Your task to perform on an android device: Clear the shopping cart on ebay. Search for "bose soundsport free" on ebay, select the first entry, and add it to the cart. Image 0: 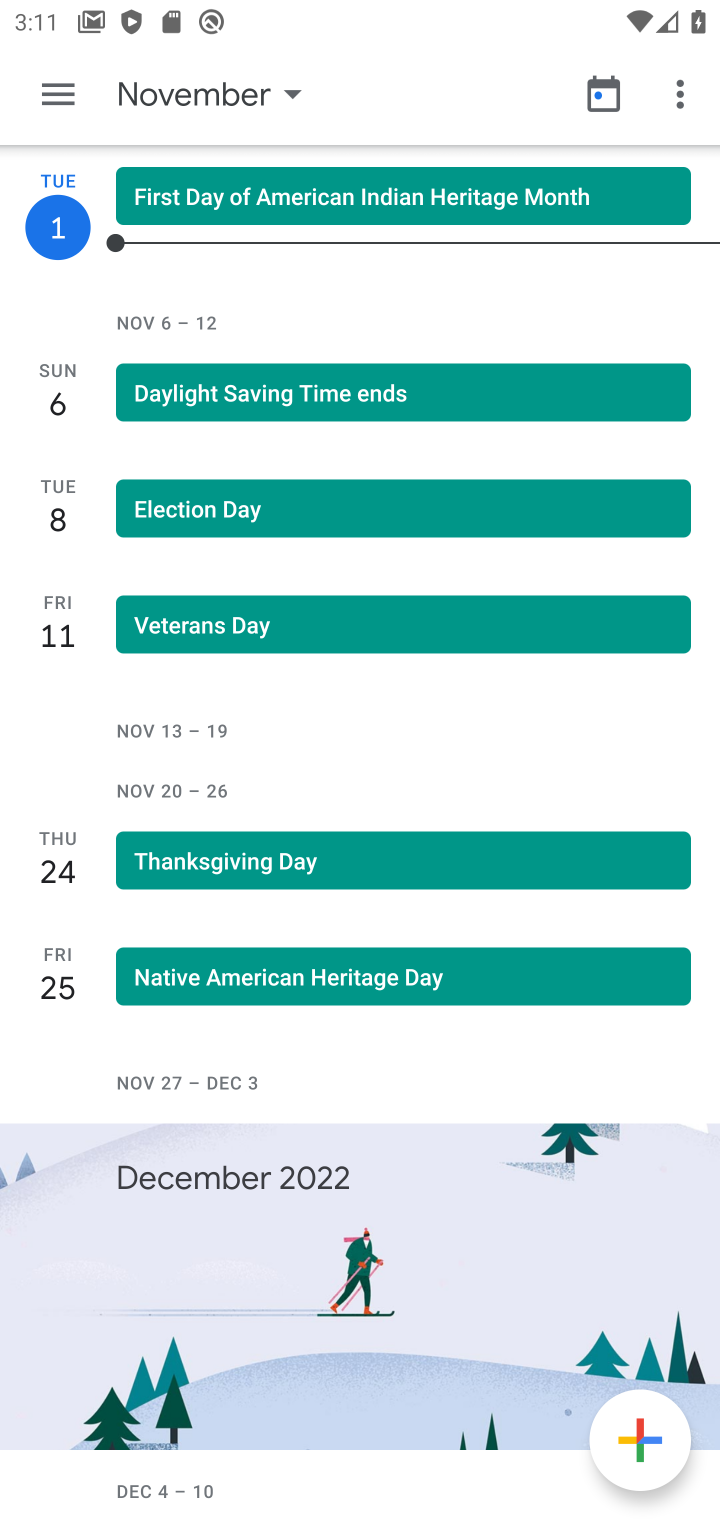
Step 0: press home button
Your task to perform on an android device: Clear the shopping cart on ebay. Search for "bose soundsport free" on ebay, select the first entry, and add it to the cart. Image 1: 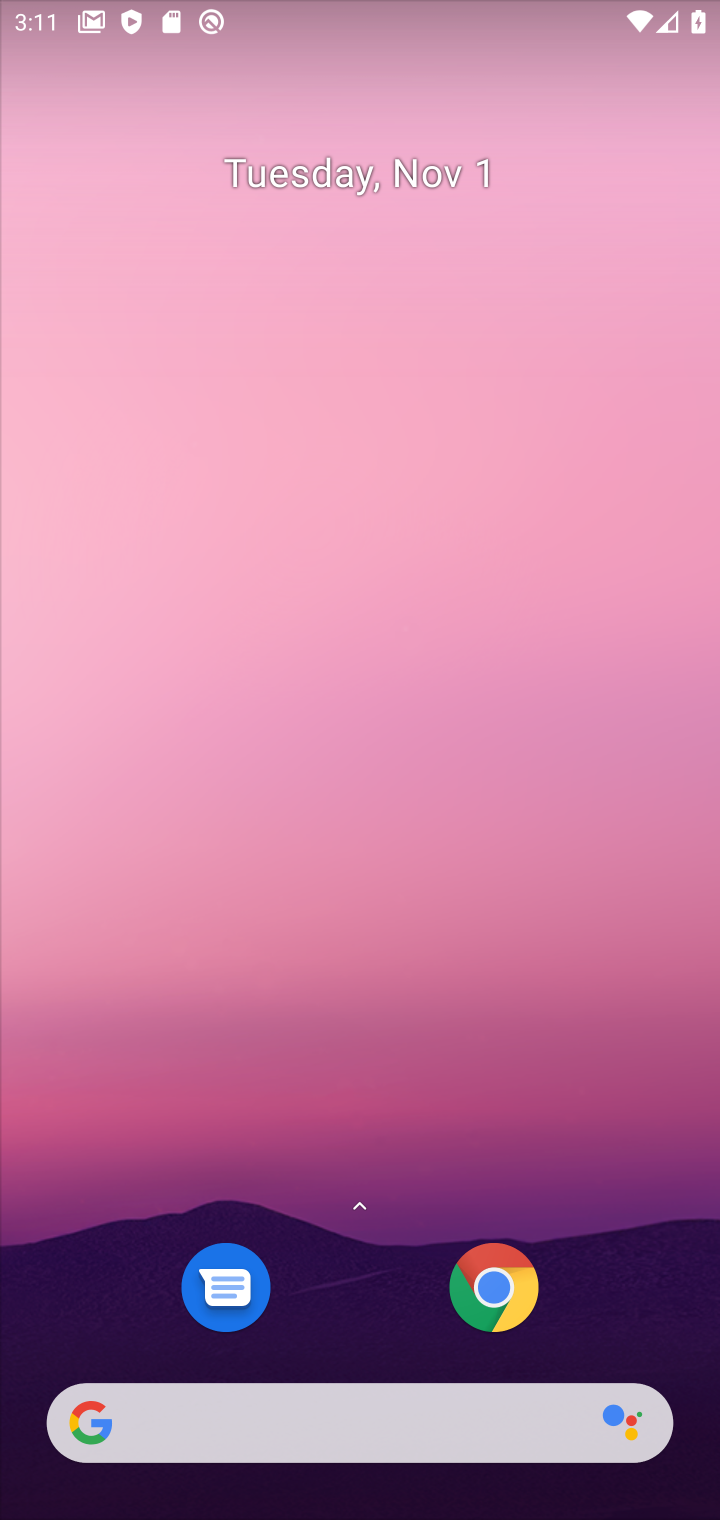
Step 1: drag from (344, 1199) to (541, 266)
Your task to perform on an android device: Clear the shopping cart on ebay. Search for "bose soundsport free" on ebay, select the first entry, and add it to the cart. Image 2: 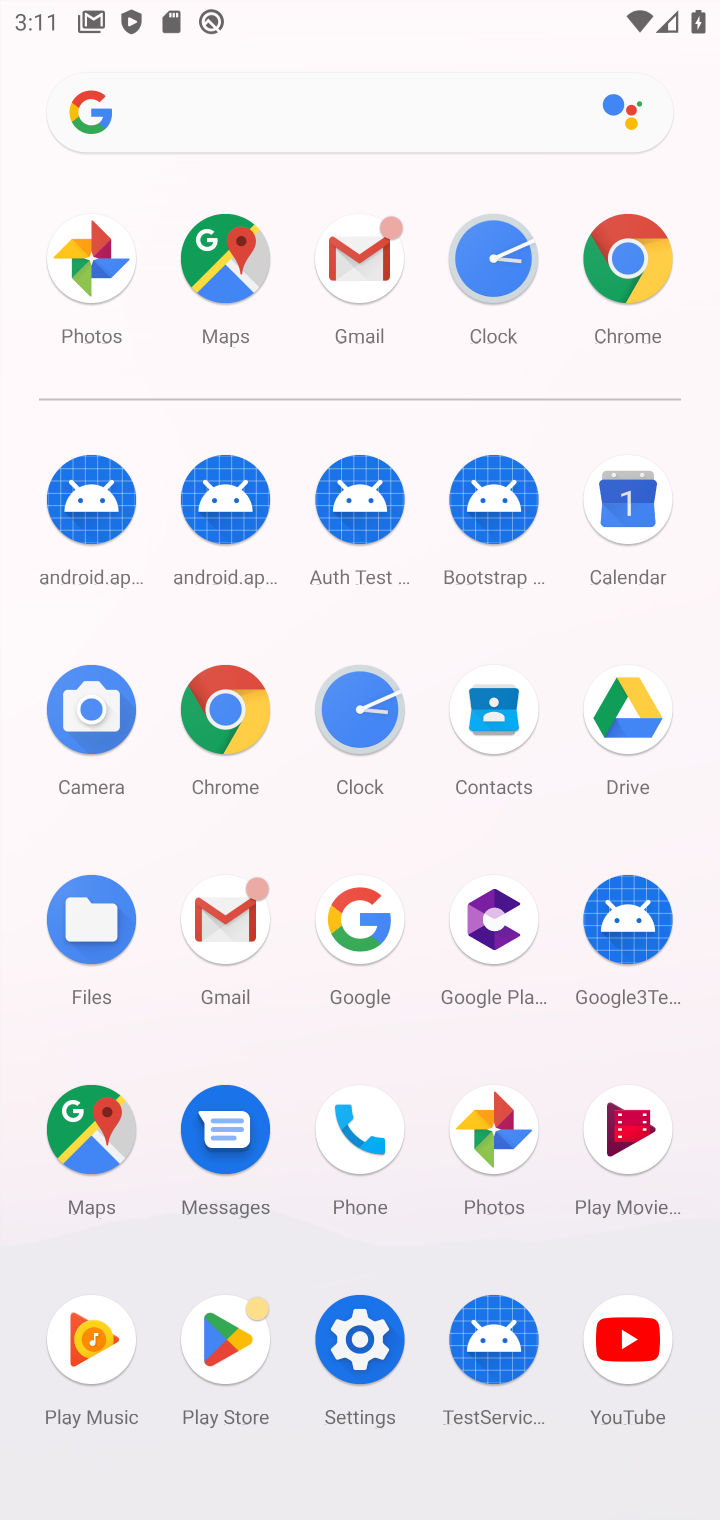
Step 2: click (237, 701)
Your task to perform on an android device: Clear the shopping cart on ebay. Search for "bose soundsport free" on ebay, select the first entry, and add it to the cart. Image 3: 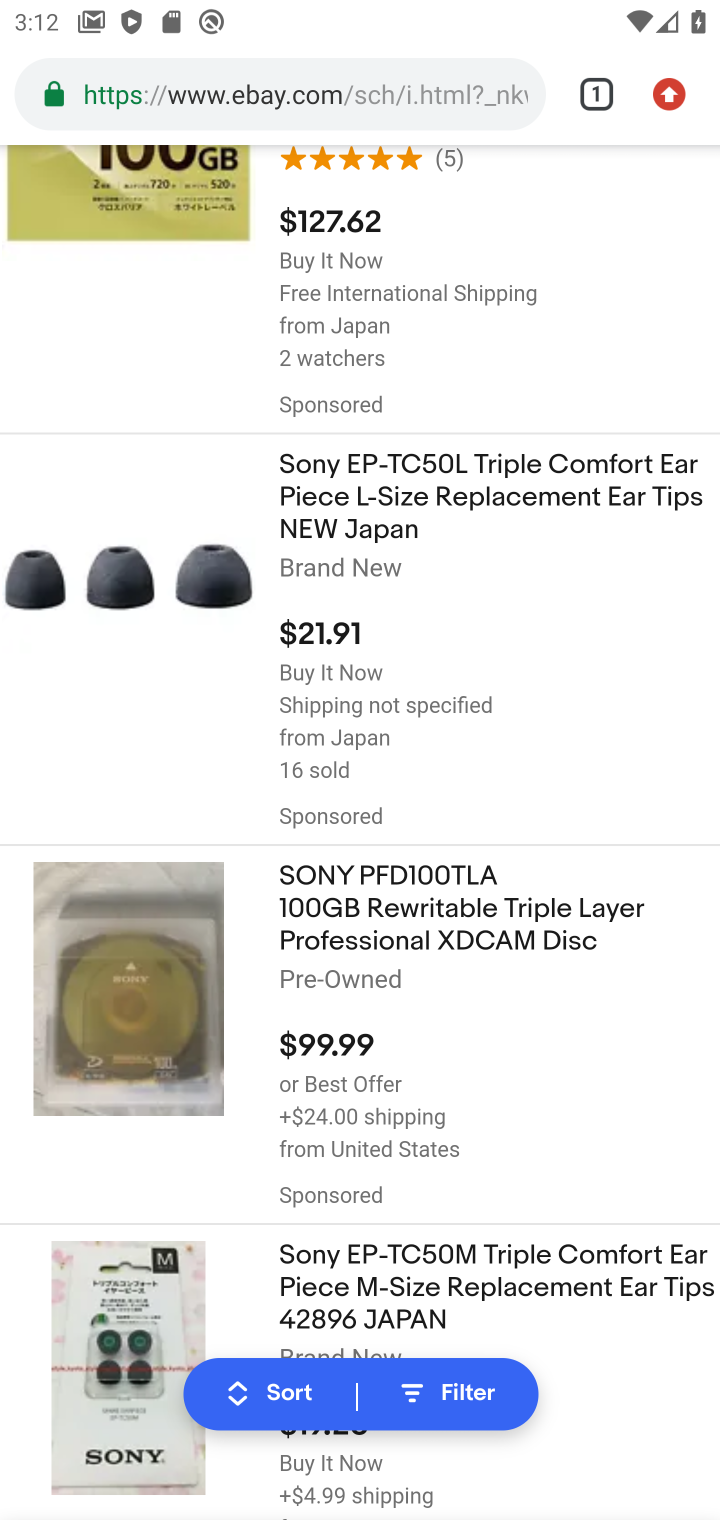
Step 3: click (398, 86)
Your task to perform on an android device: Clear the shopping cart on ebay. Search for "bose soundsport free" on ebay, select the first entry, and add it to the cart. Image 4: 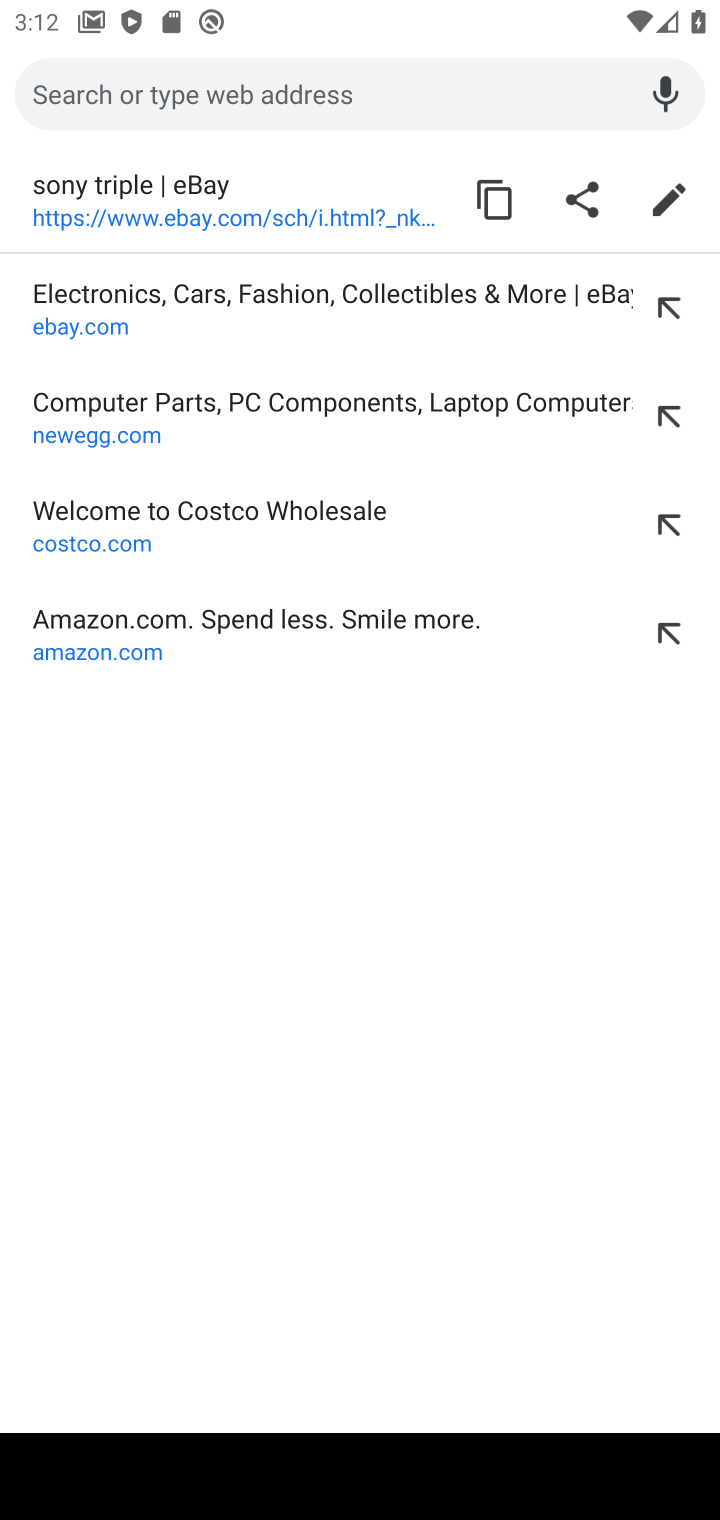
Step 4: type "ebay.com"
Your task to perform on an android device: Clear the shopping cart on ebay. Search for "bose soundsport free" on ebay, select the first entry, and add it to the cart. Image 5: 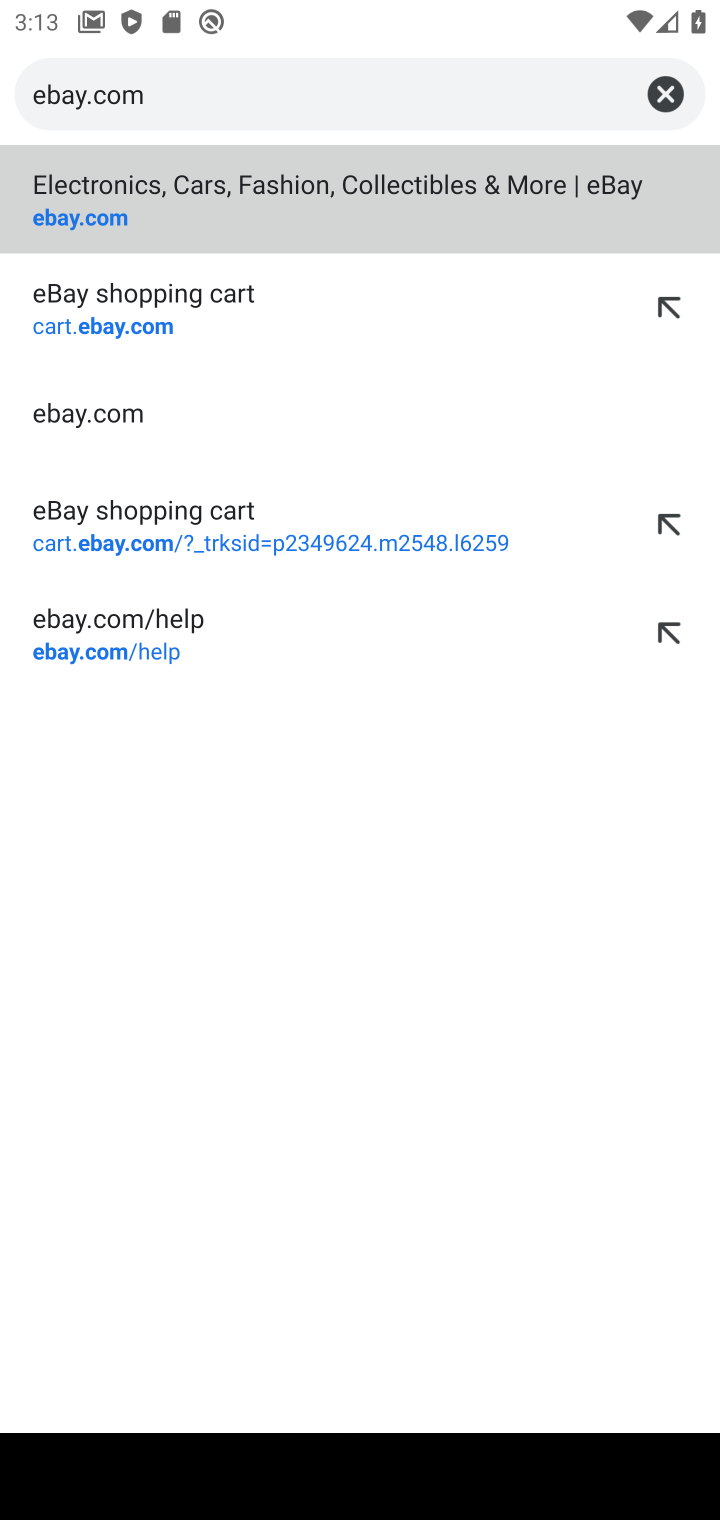
Step 5: press enter
Your task to perform on an android device: Clear the shopping cart on ebay. Search for "bose soundsport free" on ebay, select the first entry, and add it to the cart. Image 6: 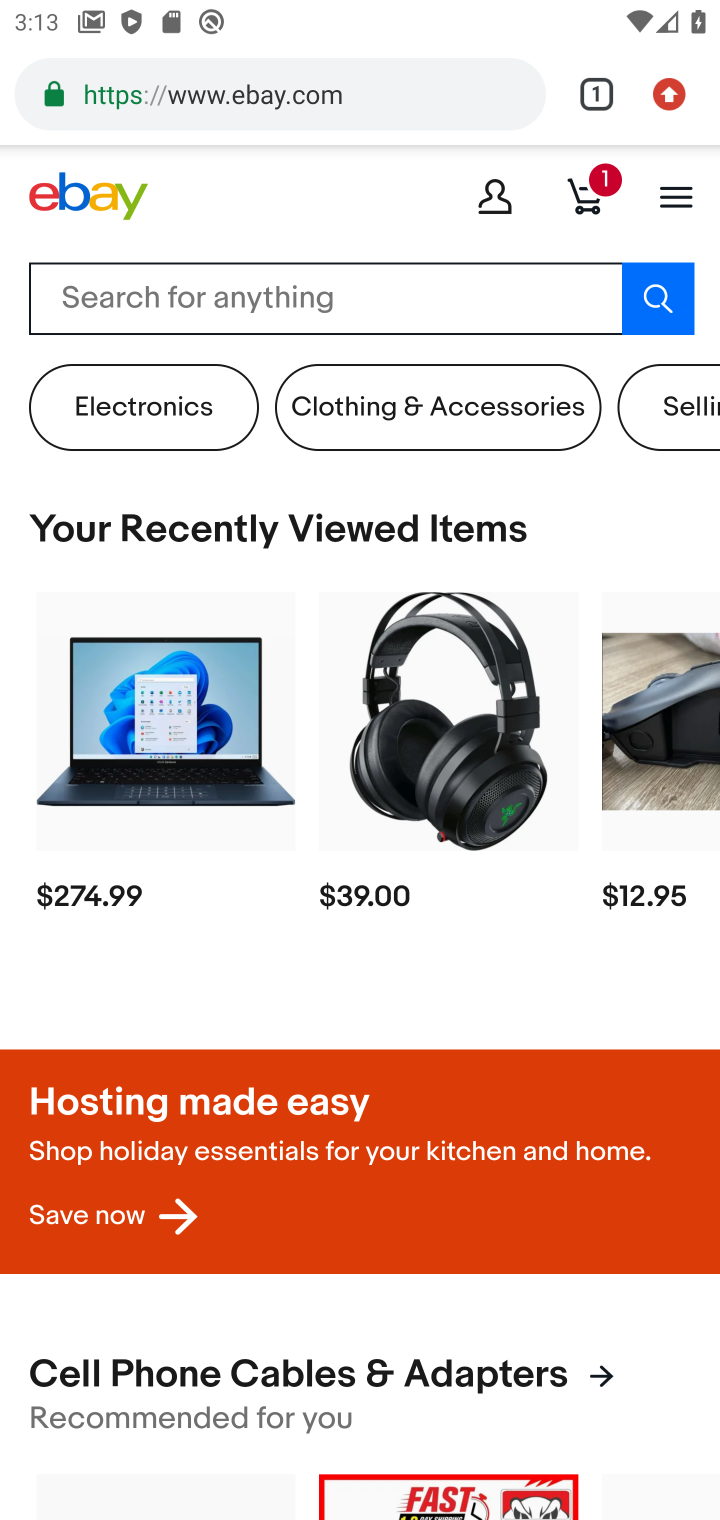
Step 6: click (612, 187)
Your task to perform on an android device: Clear the shopping cart on ebay. Search for "bose soundsport free" on ebay, select the first entry, and add it to the cart. Image 7: 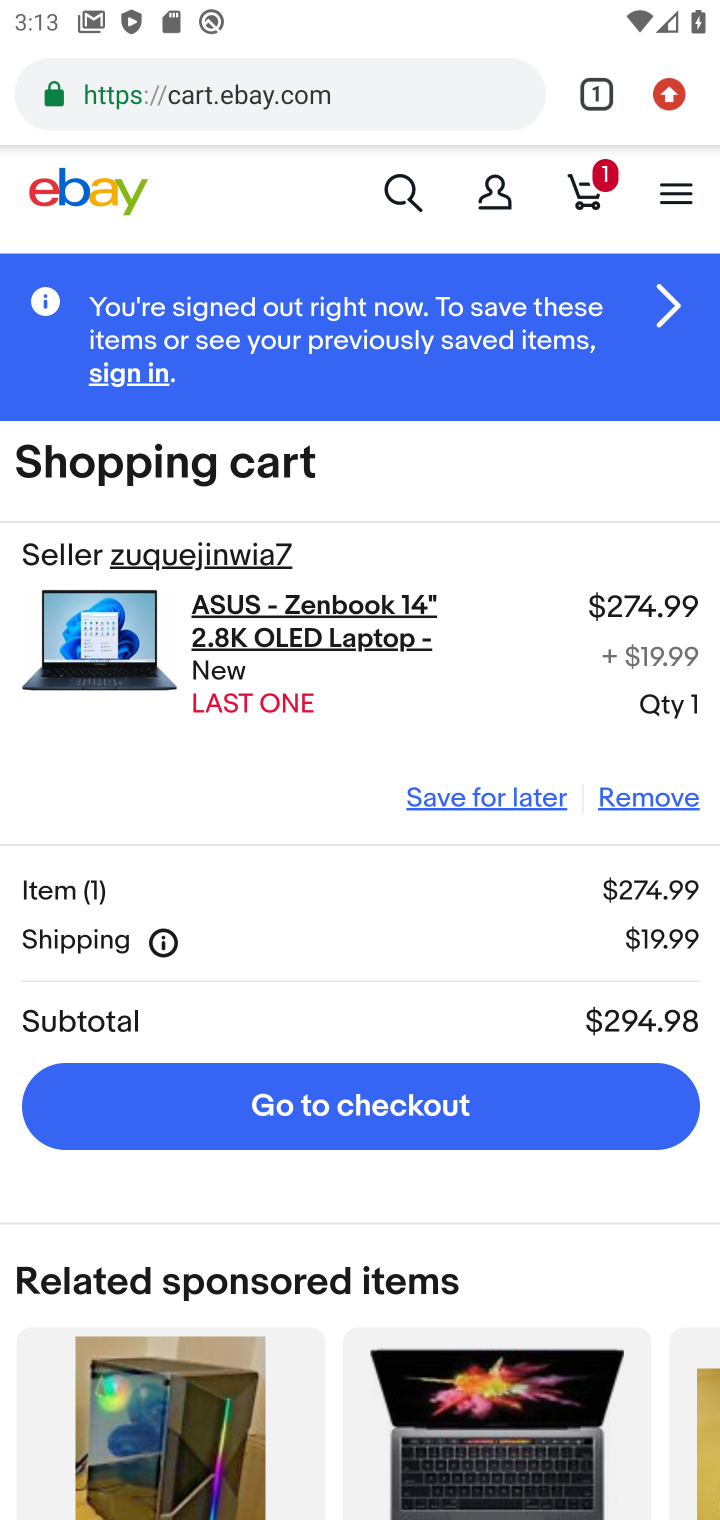
Step 7: click (651, 789)
Your task to perform on an android device: Clear the shopping cart on ebay. Search for "bose soundsport free" on ebay, select the first entry, and add it to the cart. Image 8: 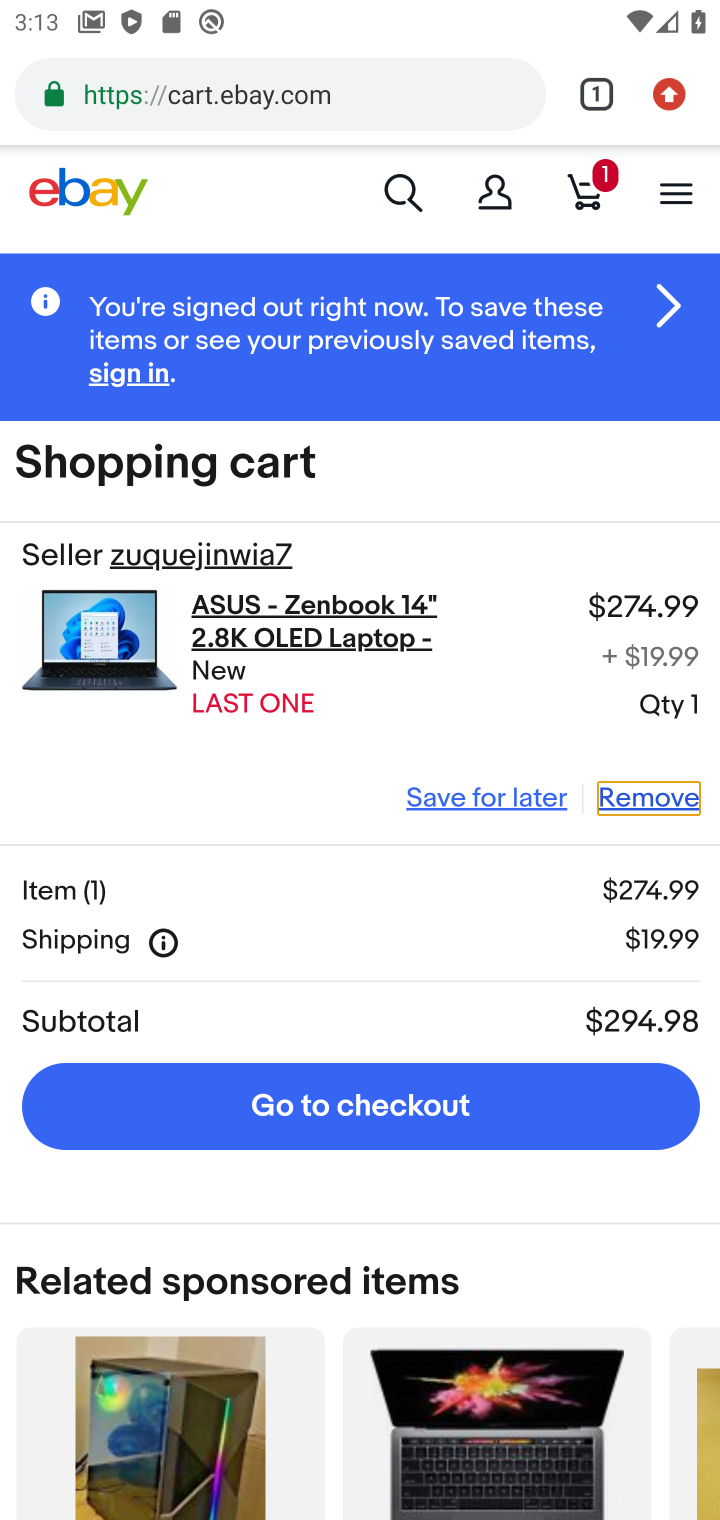
Step 8: click (652, 791)
Your task to perform on an android device: Clear the shopping cart on ebay. Search for "bose soundsport free" on ebay, select the first entry, and add it to the cart. Image 9: 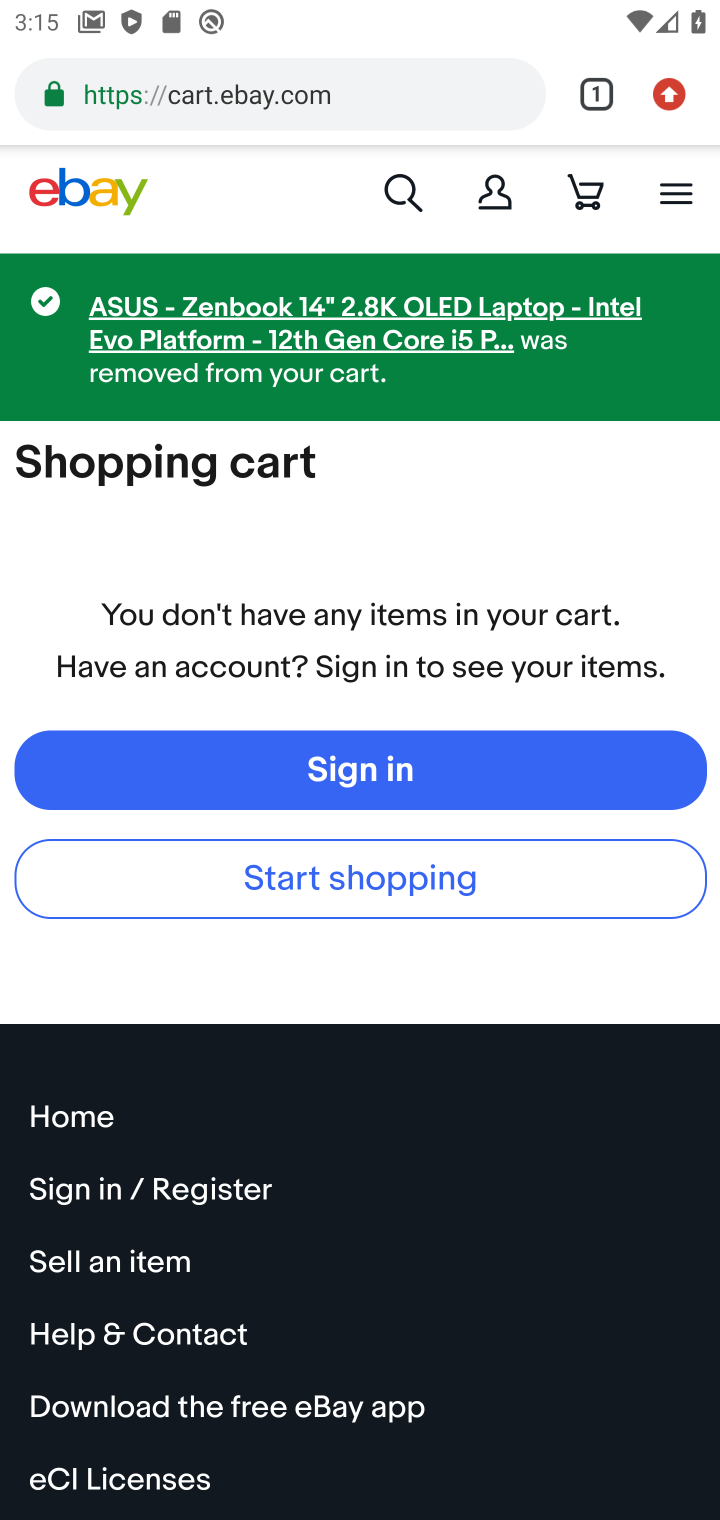
Step 9: click (402, 189)
Your task to perform on an android device: Clear the shopping cart on ebay. Search for "bose soundsport free" on ebay, select the first entry, and add it to the cart. Image 10: 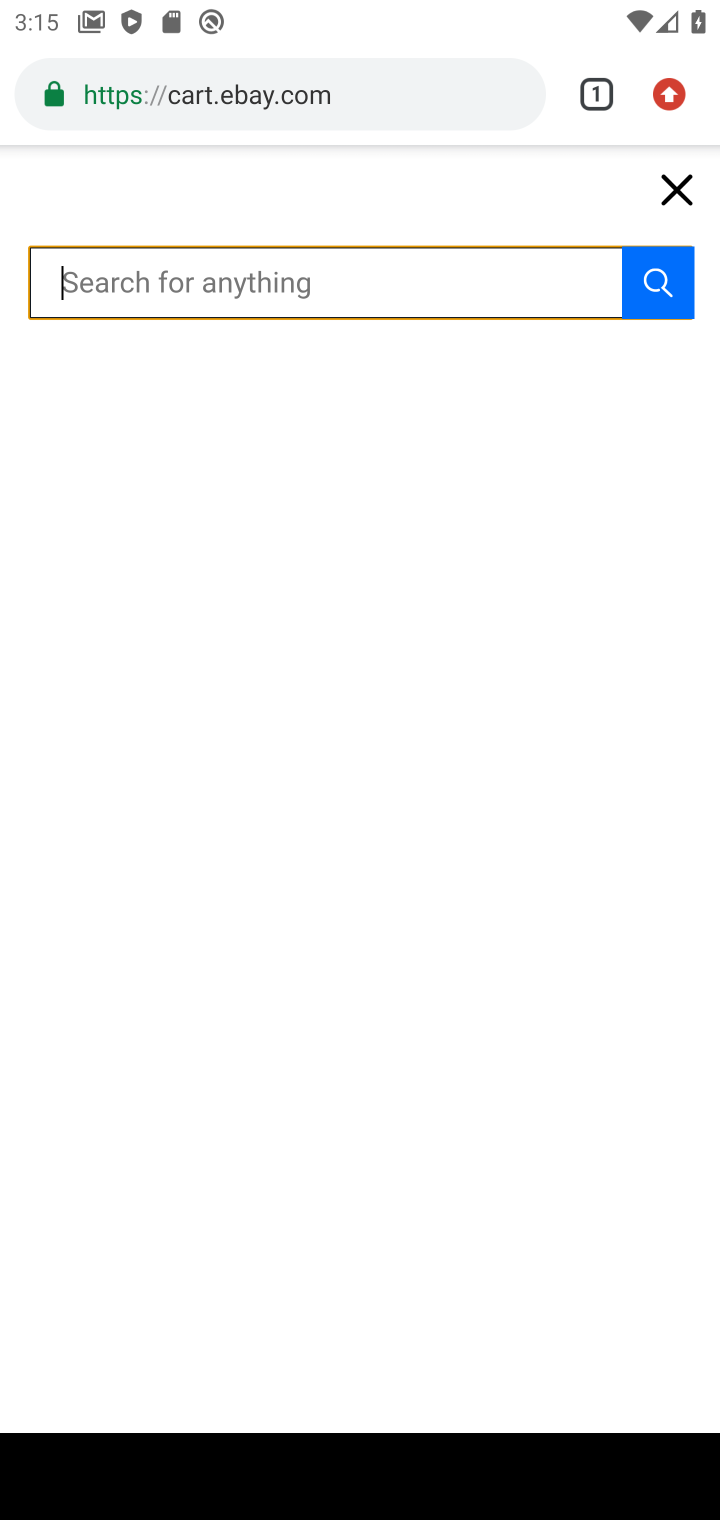
Step 10: type "bose soundsport free"
Your task to perform on an android device: Clear the shopping cart on ebay. Search for "bose soundsport free" on ebay, select the first entry, and add it to the cart. Image 11: 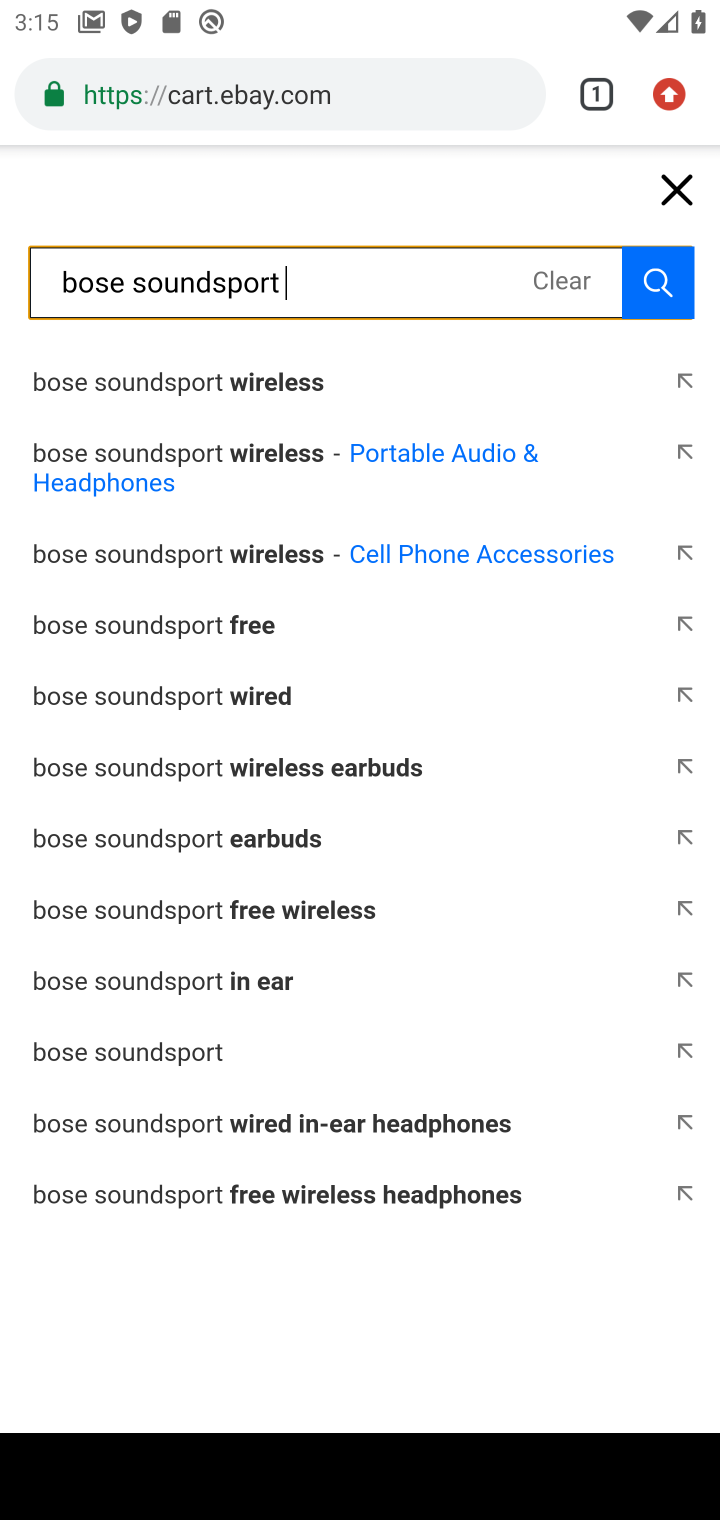
Step 11: press enter
Your task to perform on an android device: Clear the shopping cart on ebay. Search for "bose soundsport free" on ebay, select the first entry, and add it to the cart. Image 12: 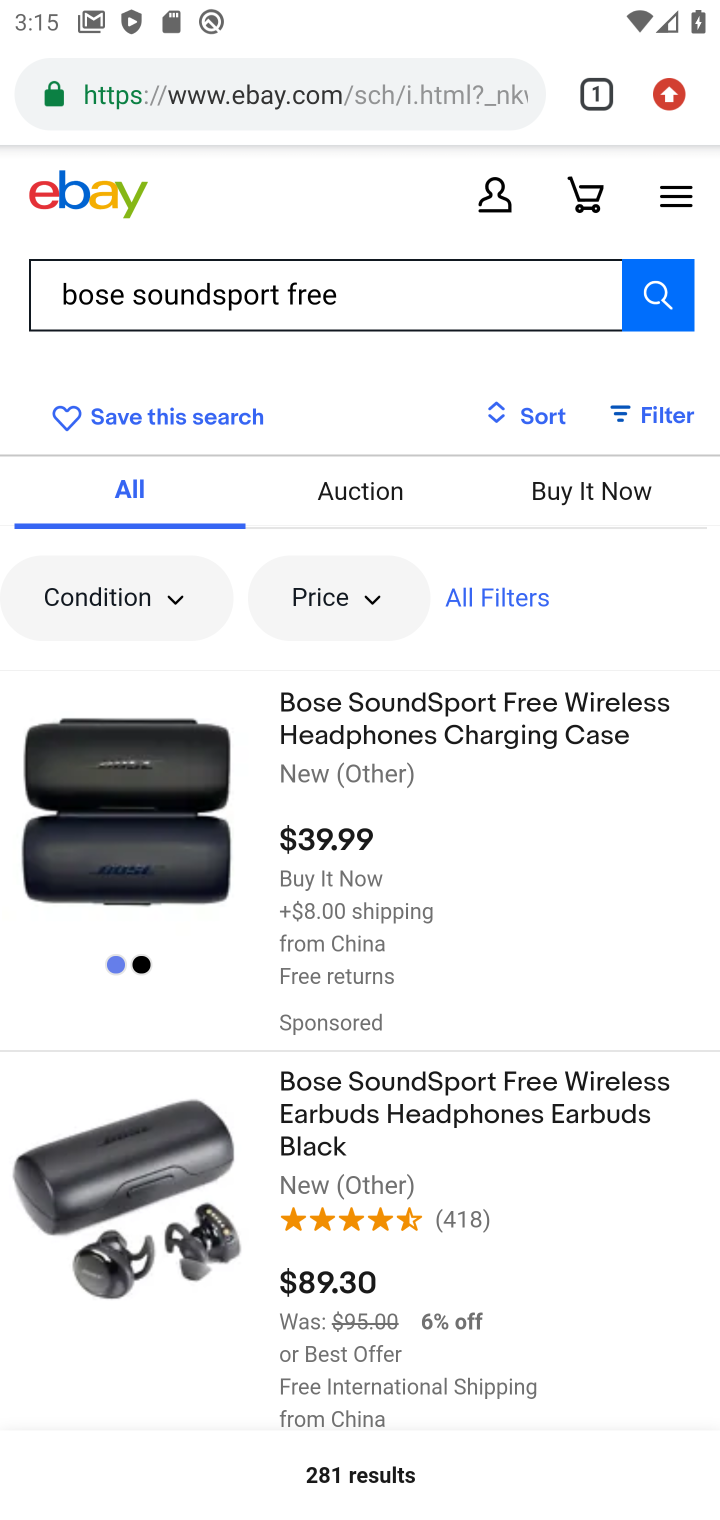
Step 12: click (184, 833)
Your task to perform on an android device: Clear the shopping cart on ebay. Search for "bose soundsport free" on ebay, select the first entry, and add it to the cart. Image 13: 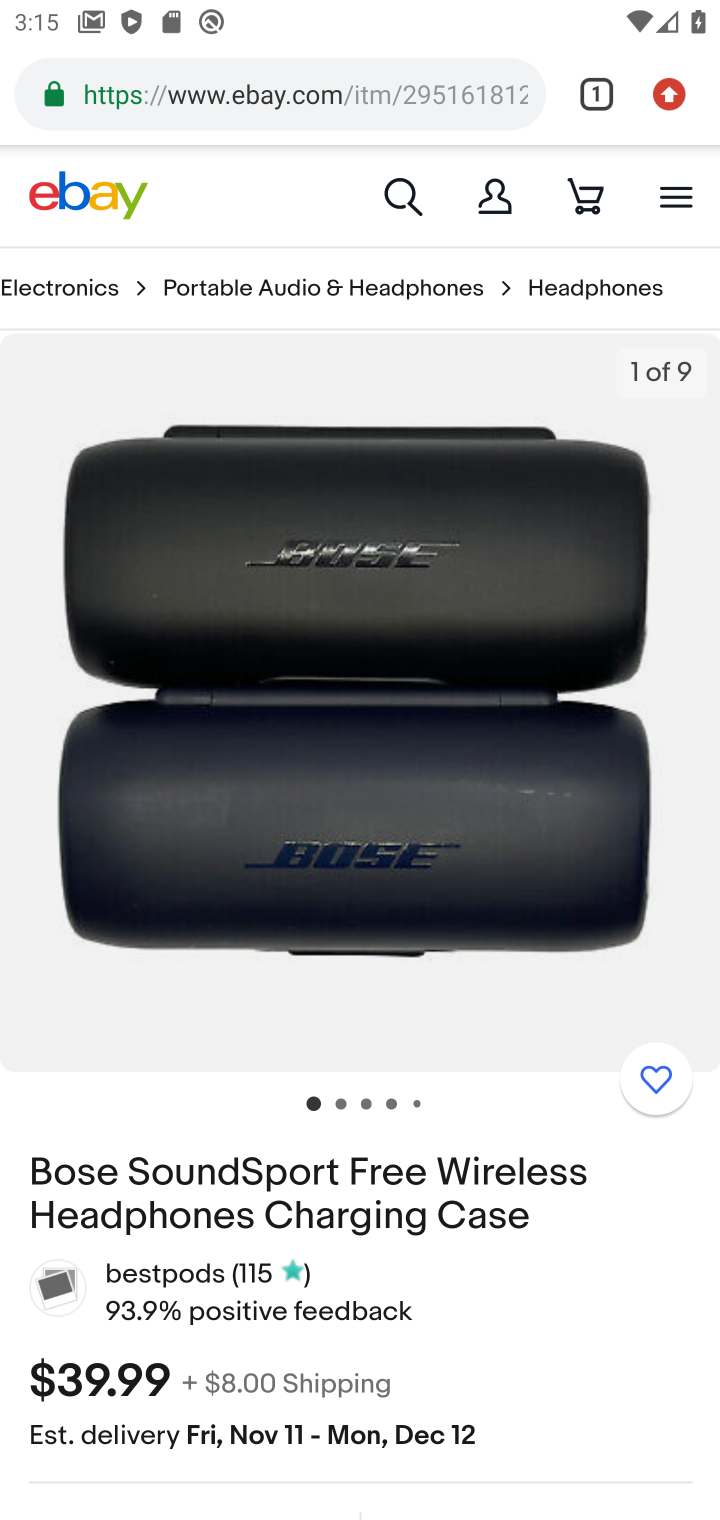
Step 13: drag from (433, 1181) to (446, 602)
Your task to perform on an android device: Clear the shopping cart on ebay. Search for "bose soundsport free" on ebay, select the first entry, and add it to the cart. Image 14: 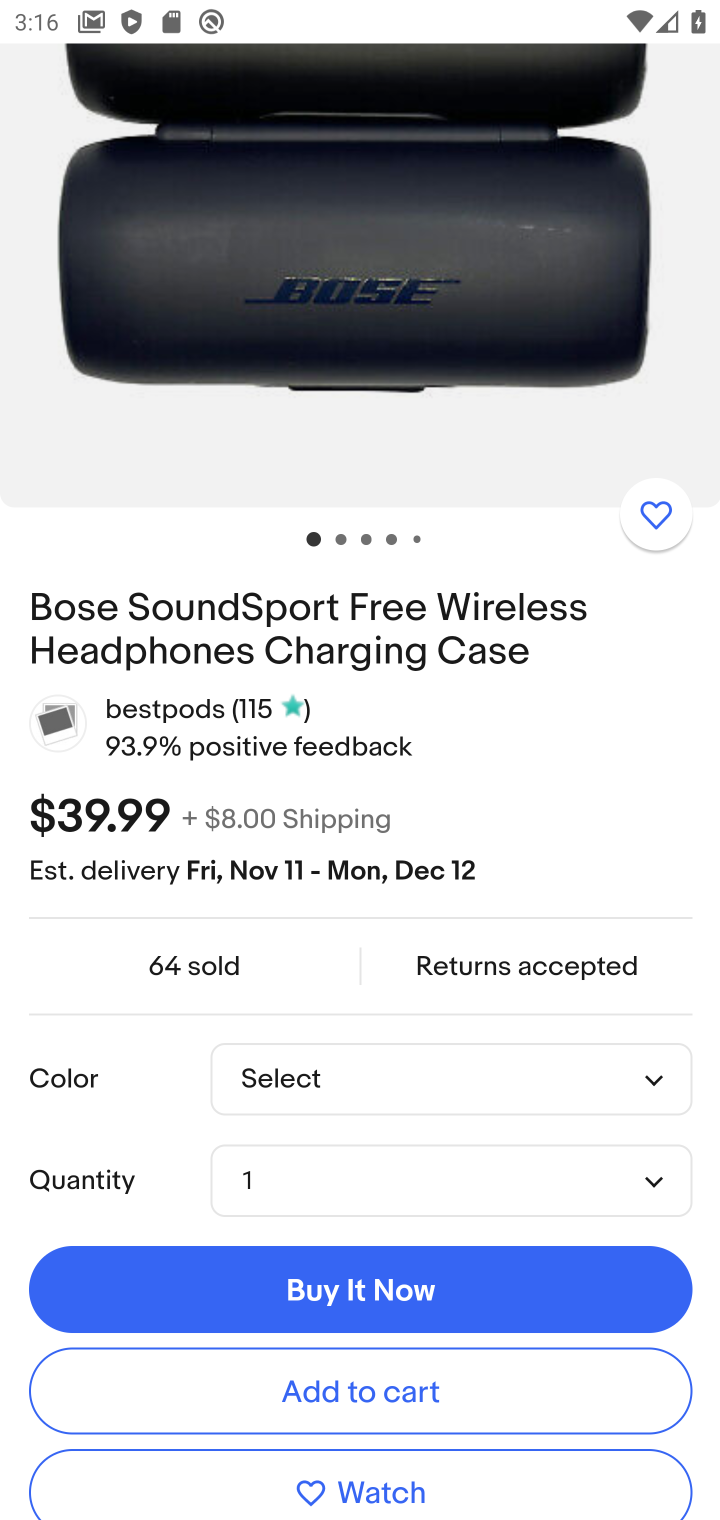
Step 14: click (442, 1396)
Your task to perform on an android device: Clear the shopping cart on ebay. Search for "bose soundsport free" on ebay, select the first entry, and add it to the cart. Image 15: 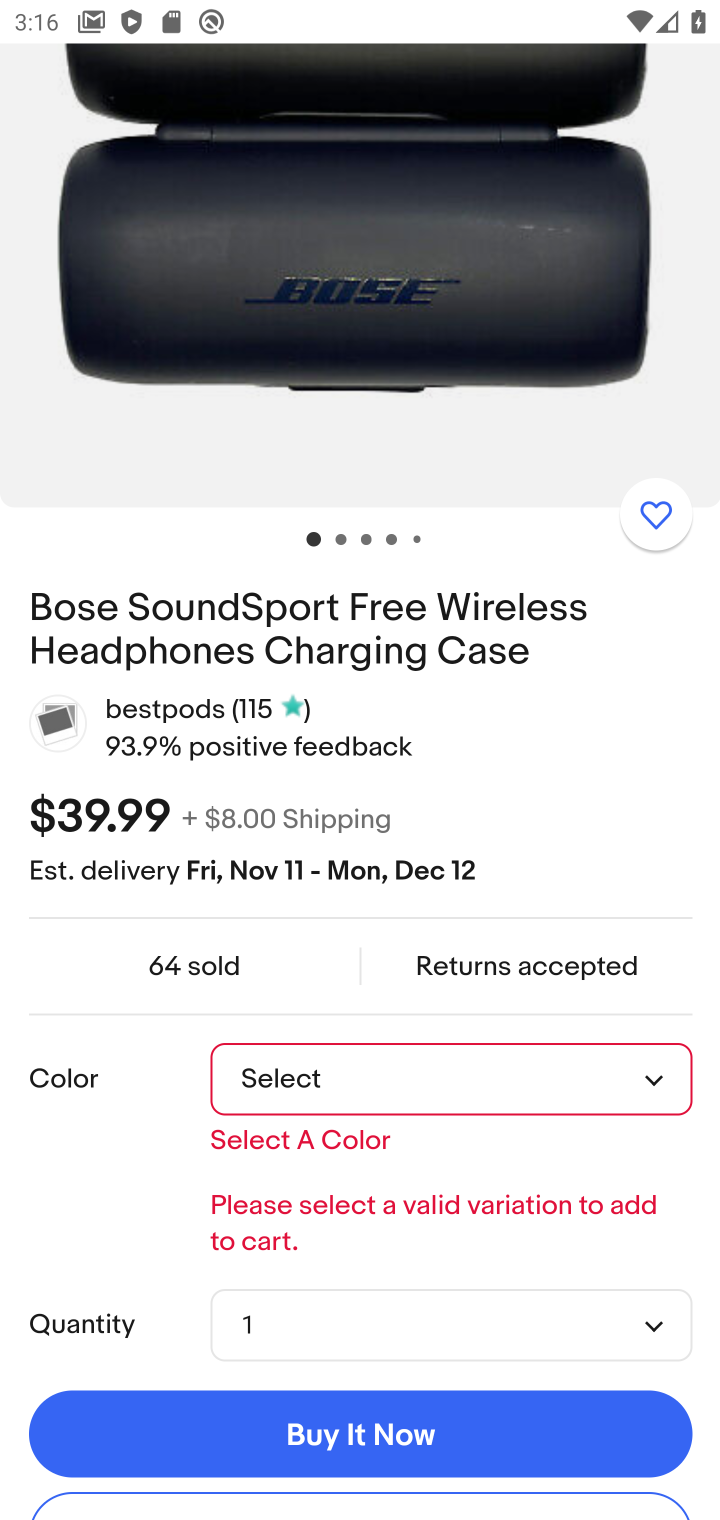
Step 15: click (466, 1072)
Your task to perform on an android device: Clear the shopping cart on ebay. Search for "bose soundsport free" on ebay, select the first entry, and add it to the cart. Image 16: 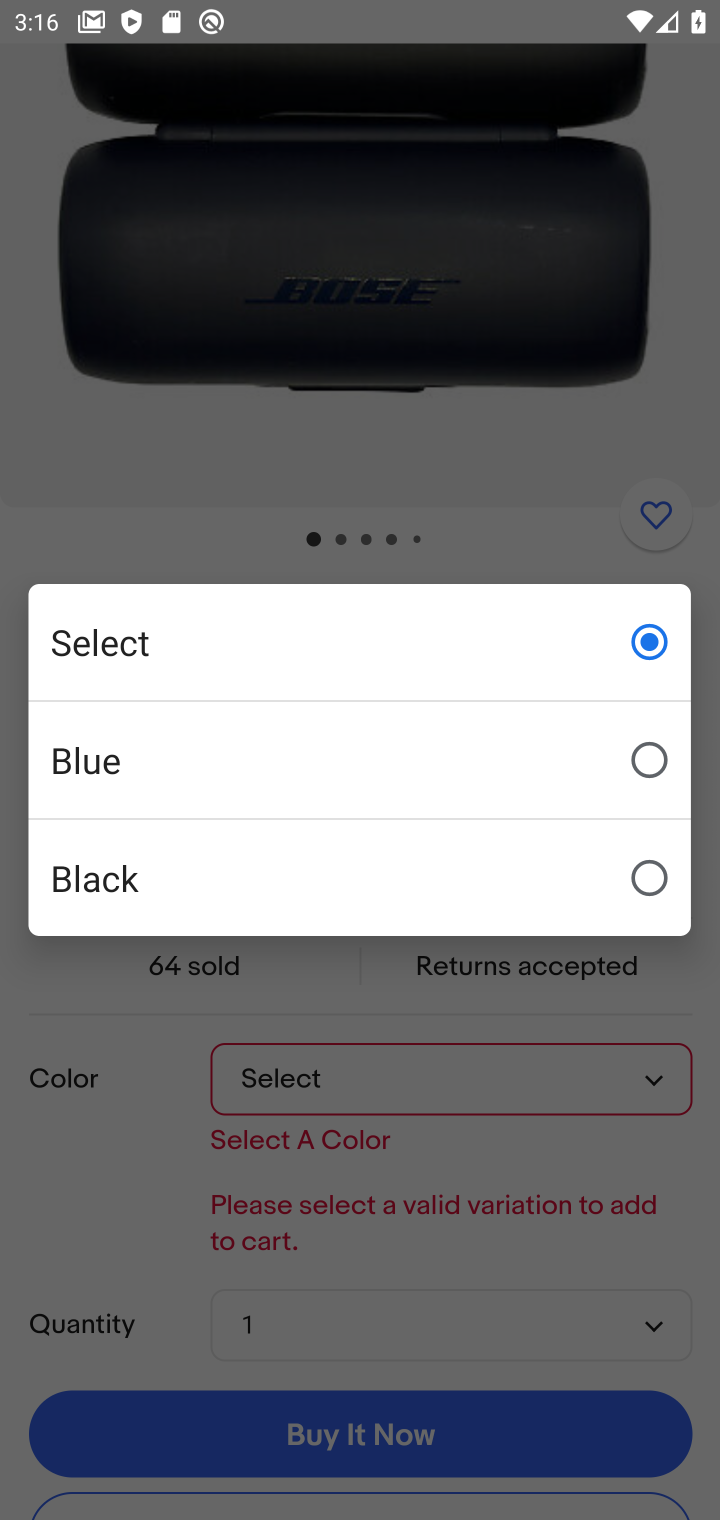
Step 16: click (271, 749)
Your task to perform on an android device: Clear the shopping cart on ebay. Search for "bose soundsport free" on ebay, select the first entry, and add it to the cart. Image 17: 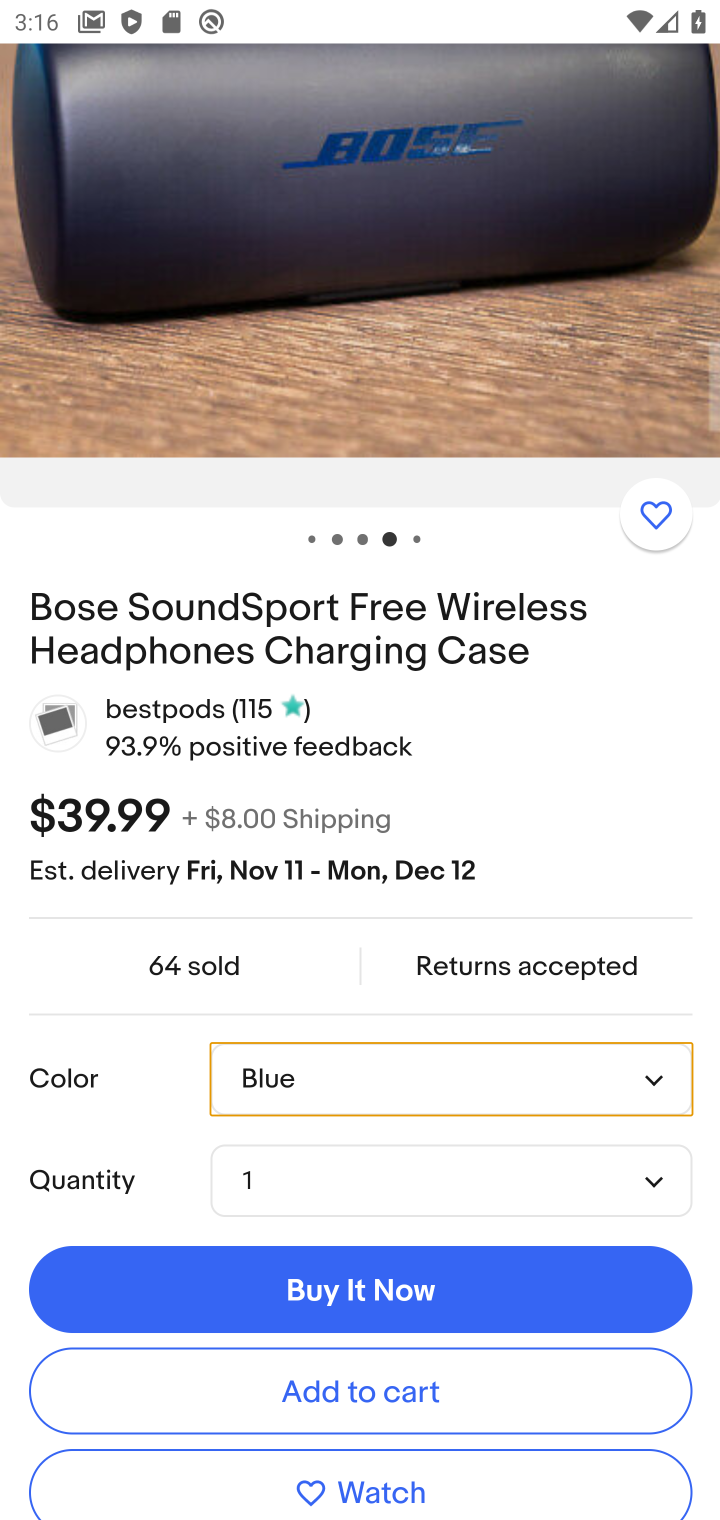
Step 17: click (488, 1398)
Your task to perform on an android device: Clear the shopping cart on ebay. Search for "bose soundsport free" on ebay, select the first entry, and add it to the cart. Image 18: 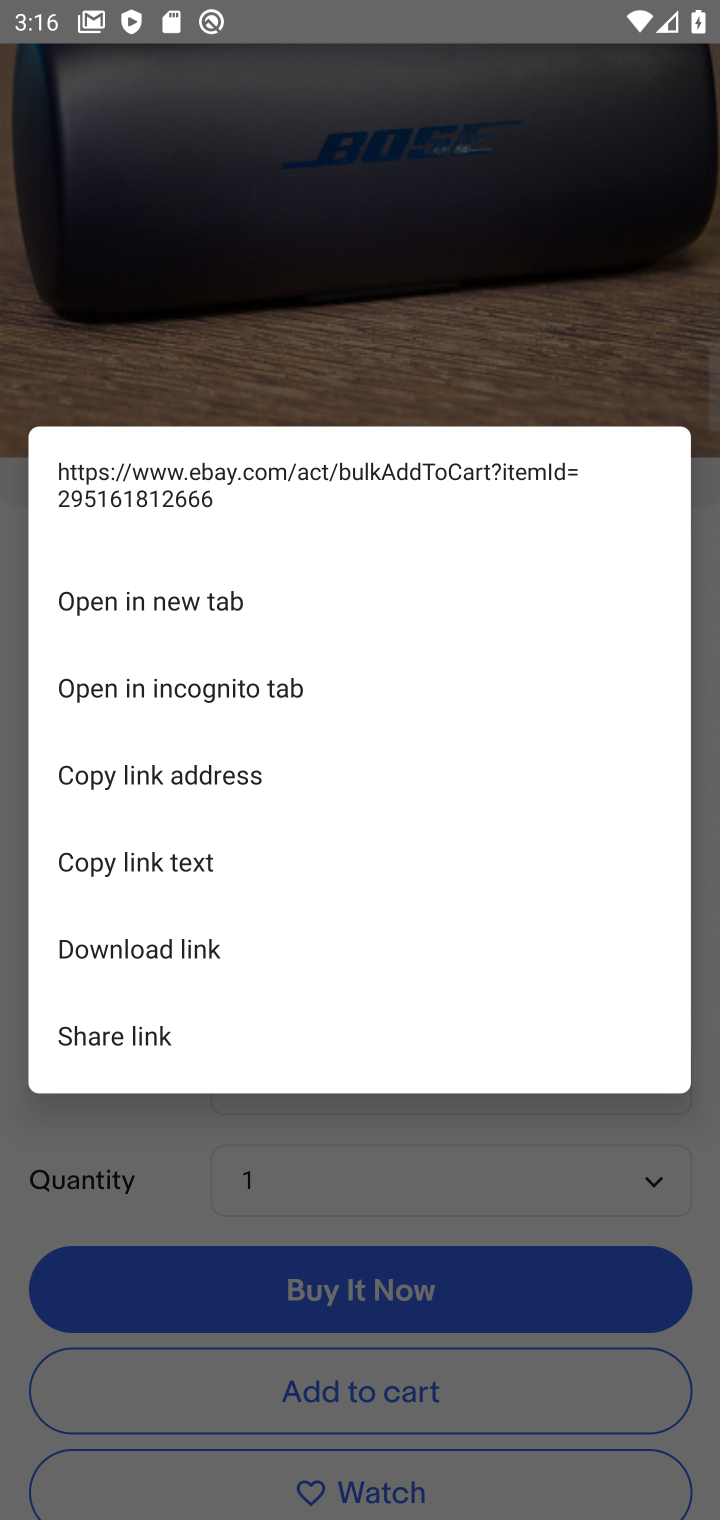
Step 18: click (470, 1208)
Your task to perform on an android device: Clear the shopping cart on ebay. Search for "bose soundsport free" on ebay, select the first entry, and add it to the cart. Image 19: 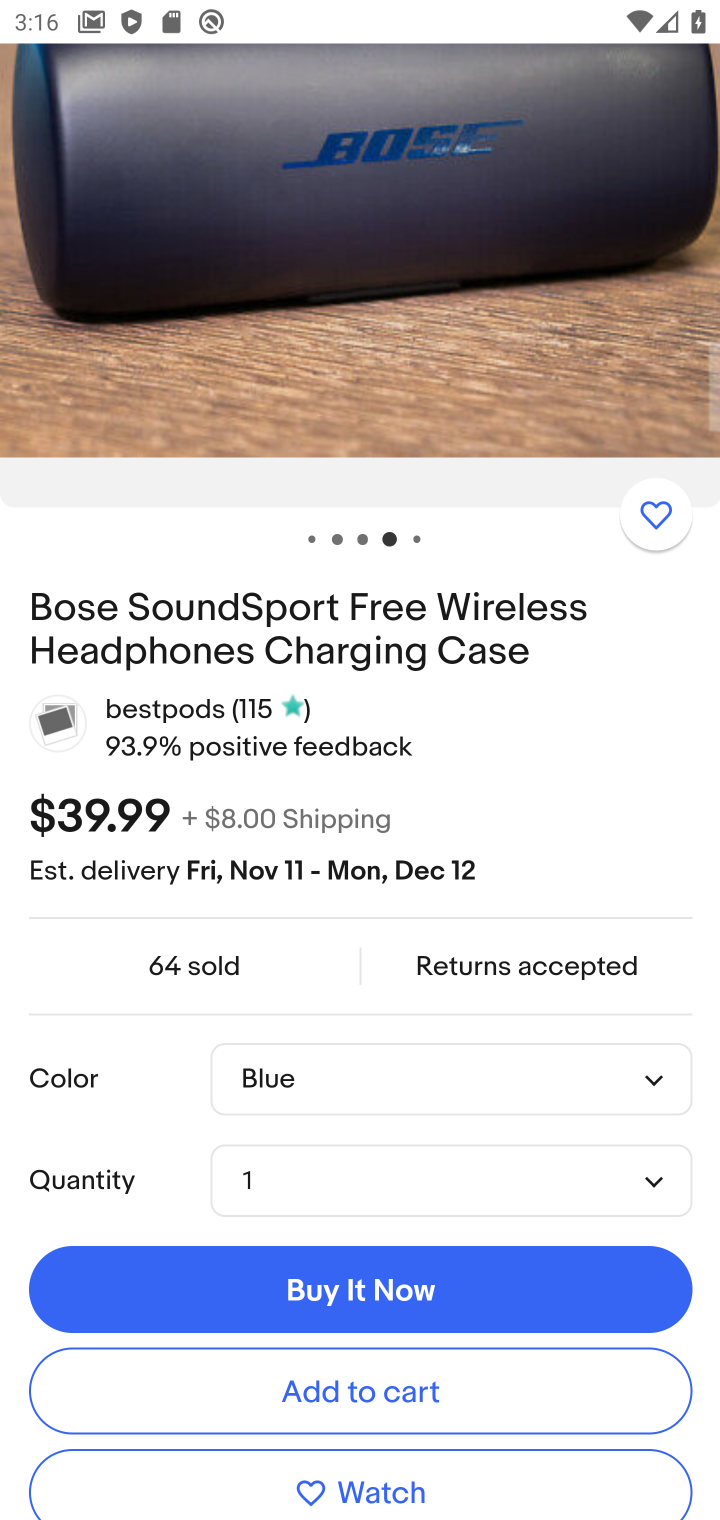
Step 19: click (509, 1420)
Your task to perform on an android device: Clear the shopping cart on ebay. Search for "bose soundsport free" on ebay, select the first entry, and add it to the cart. Image 20: 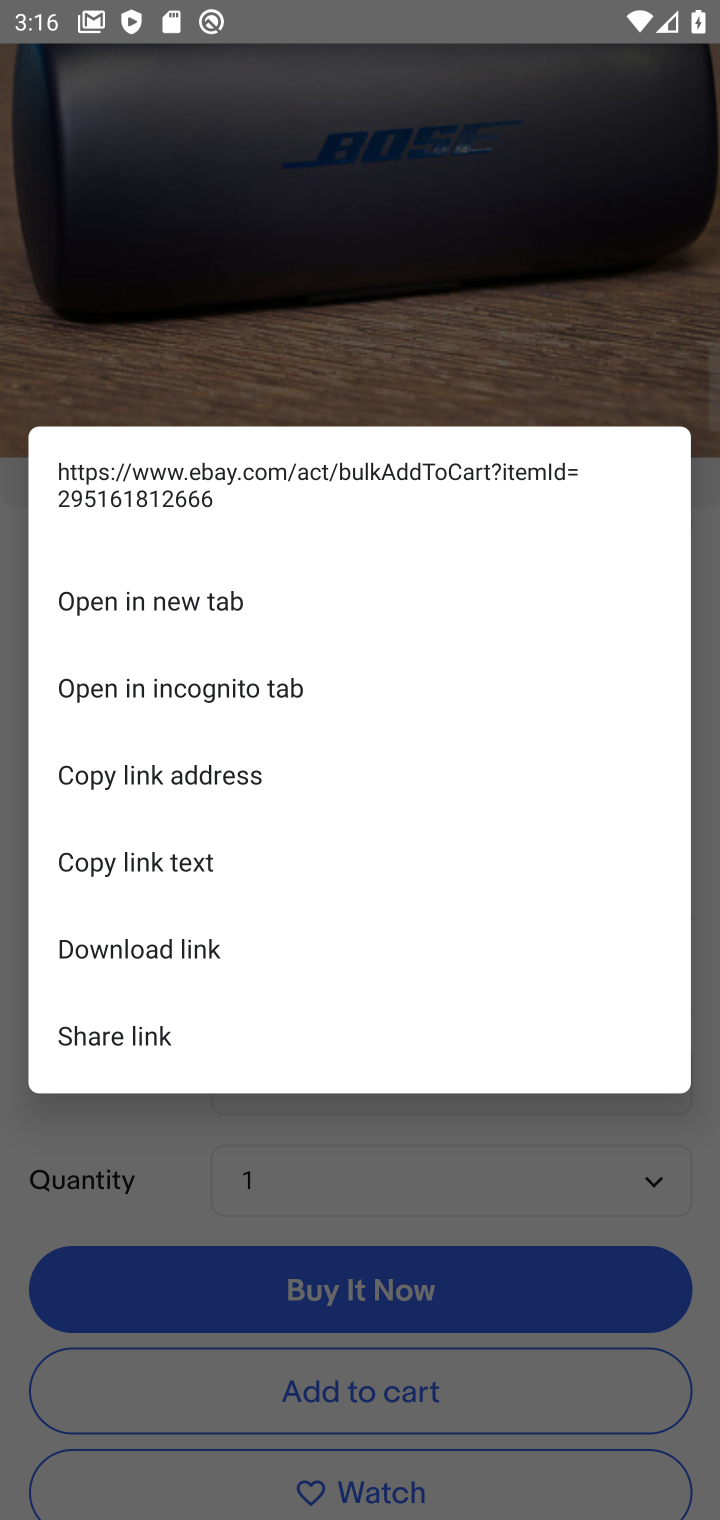
Step 20: click (186, 1409)
Your task to perform on an android device: Clear the shopping cart on ebay. Search for "bose soundsport free" on ebay, select the first entry, and add it to the cart. Image 21: 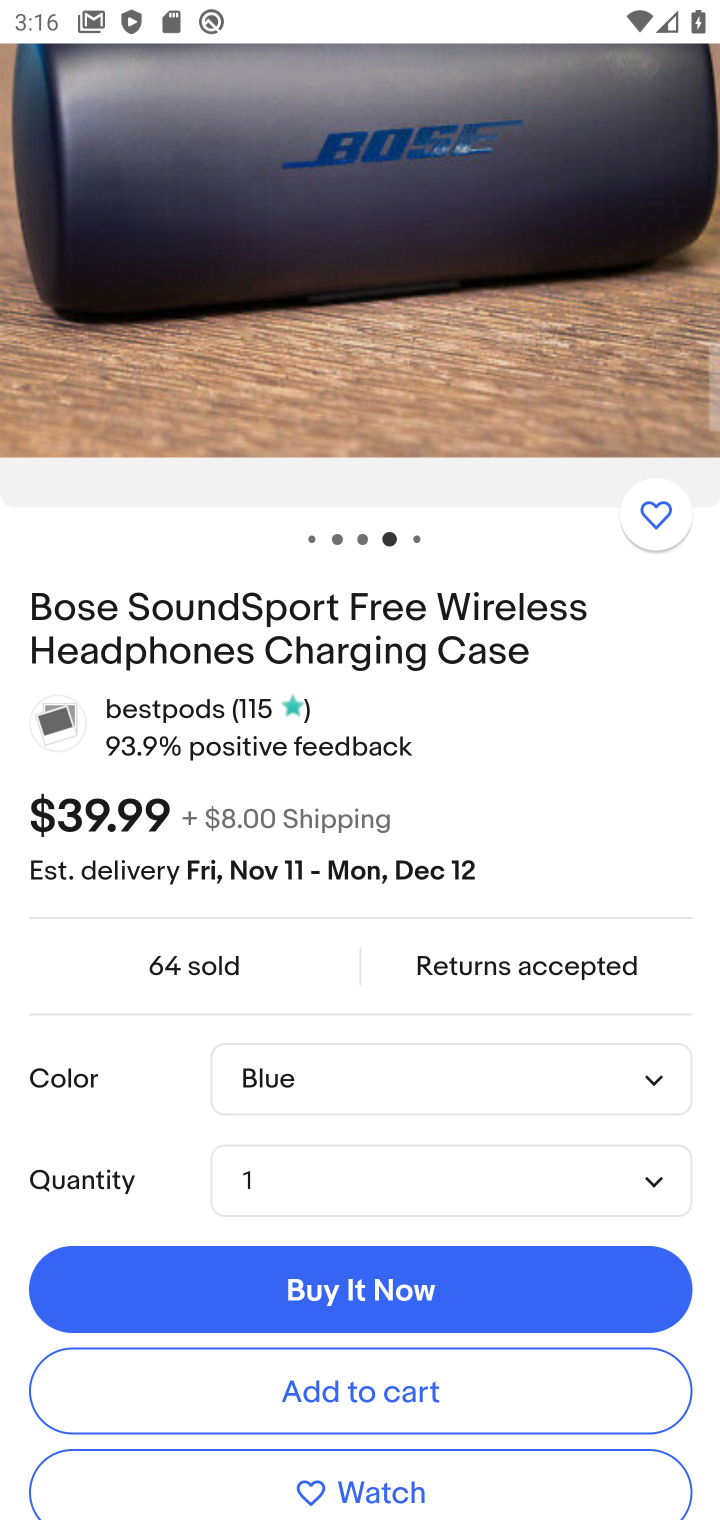
Step 21: click (283, 1386)
Your task to perform on an android device: Clear the shopping cart on ebay. Search for "bose soundsport free" on ebay, select the first entry, and add it to the cart. Image 22: 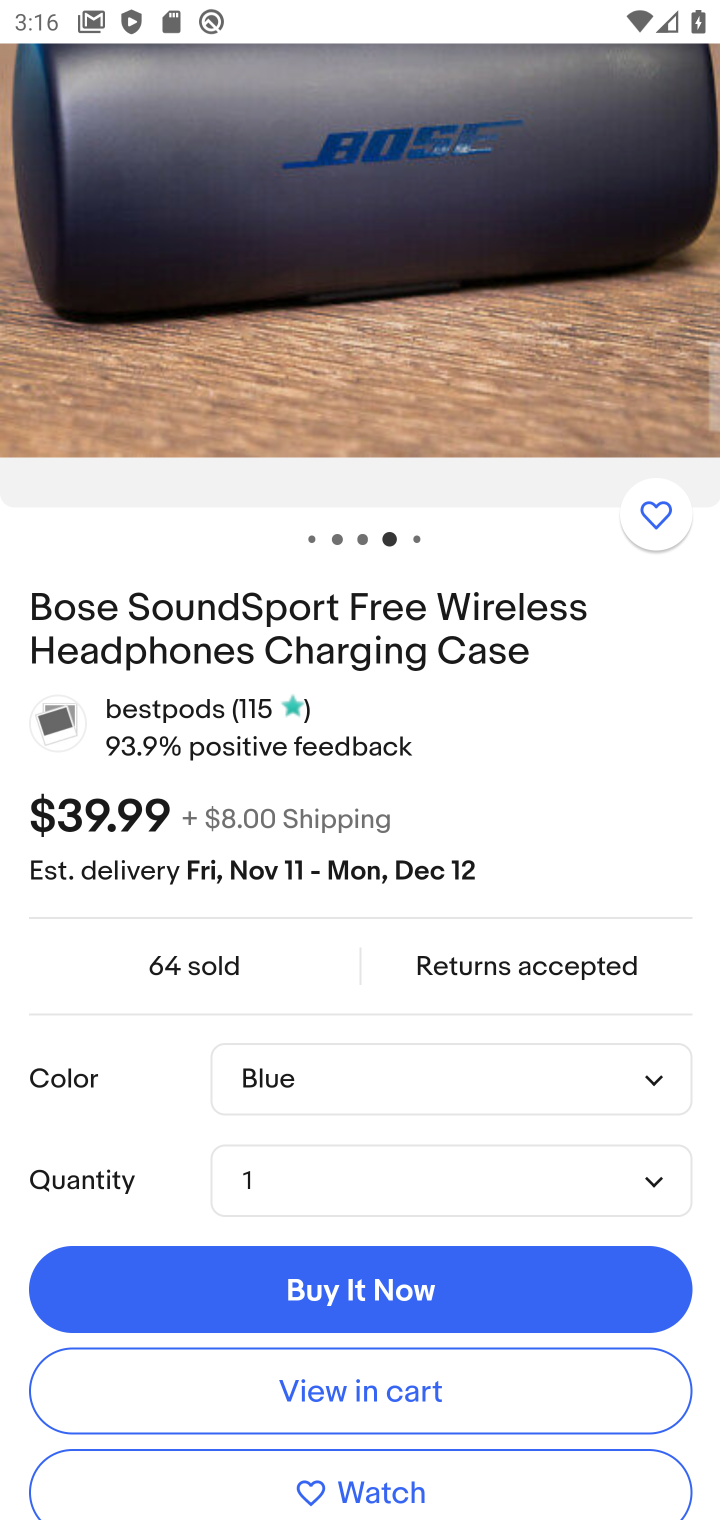
Step 22: task complete